Your task to perform on an android device: Open sound settings Image 0: 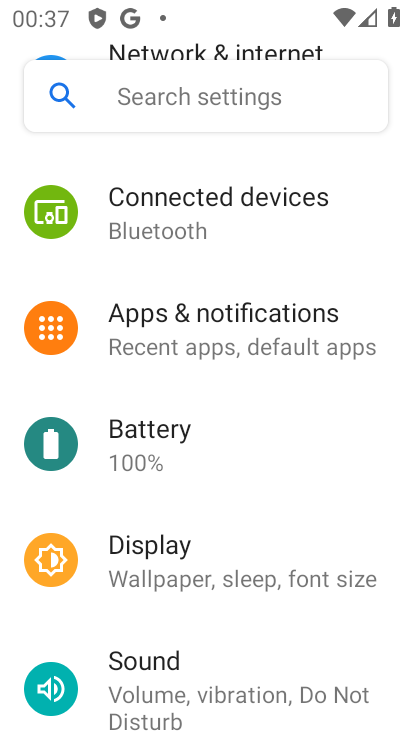
Step 0: click (225, 656)
Your task to perform on an android device: Open sound settings Image 1: 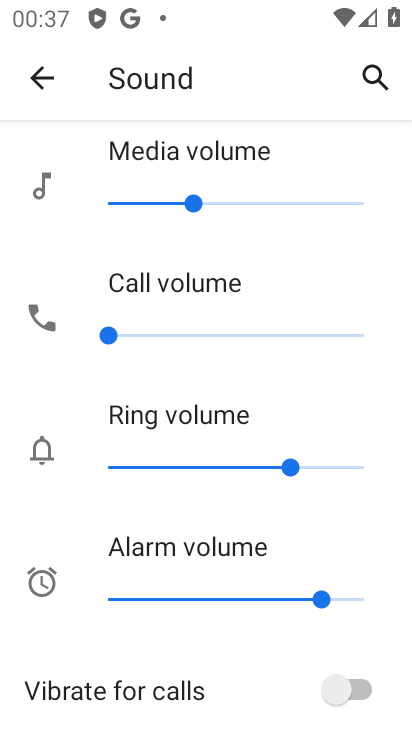
Step 1: task complete